Your task to perform on an android device: Open Maps and search for coffee Image 0: 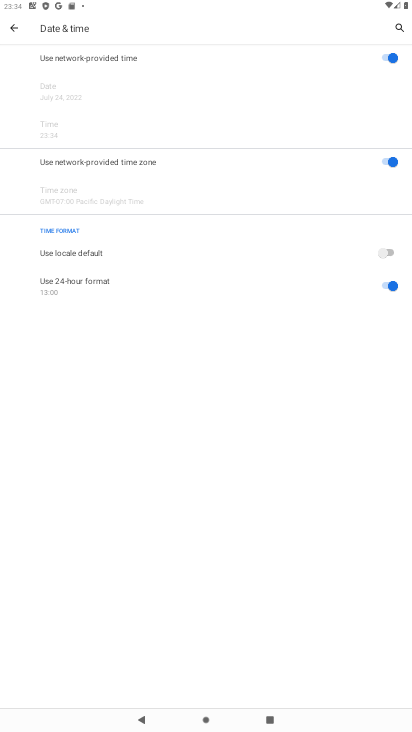
Step 0: press home button
Your task to perform on an android device: Open Maps and search for coffee Image 1: 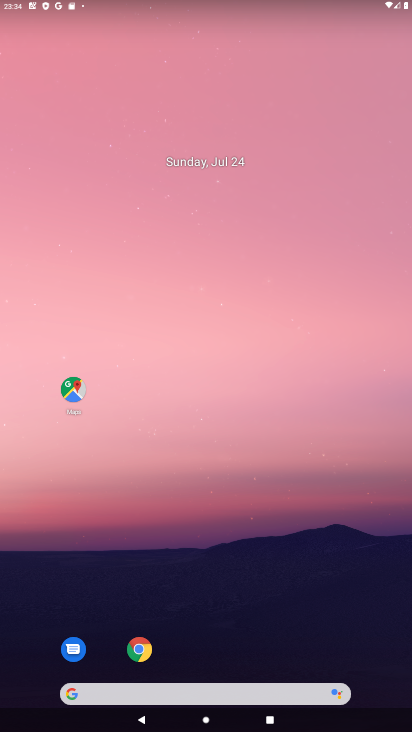
Step 1: click (73, 389)
Your task to perform on an android device: Open Maps and search for coffee Image 2: 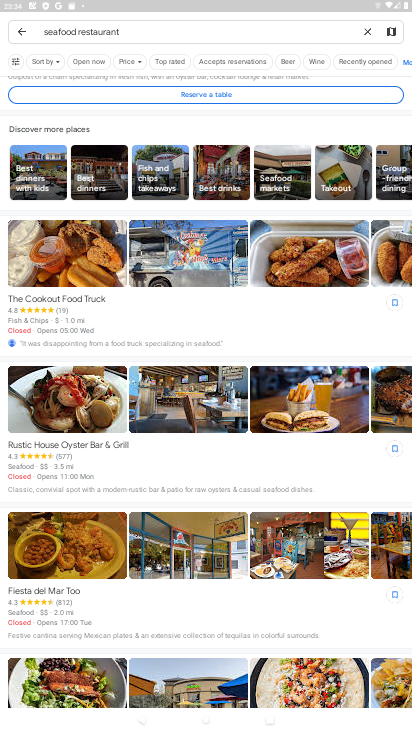
Step 2: click (365, 32)
Your task to perform on an android device: Open Maps and search for coffee Image 3: 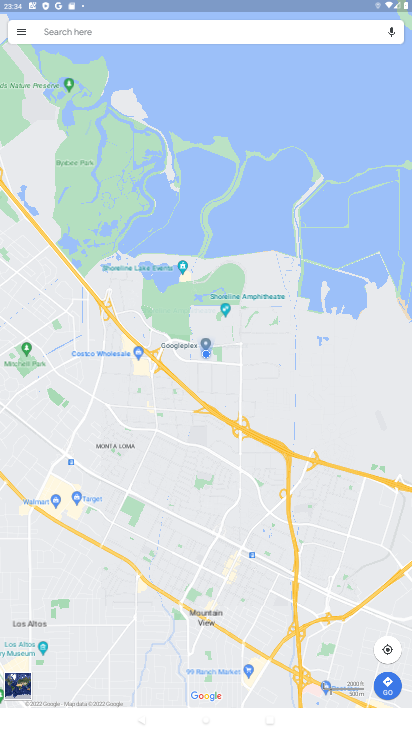
Step 3: click (123, 34)
Your task to perform on an android device: Open Maps and search for coffee Image 4: 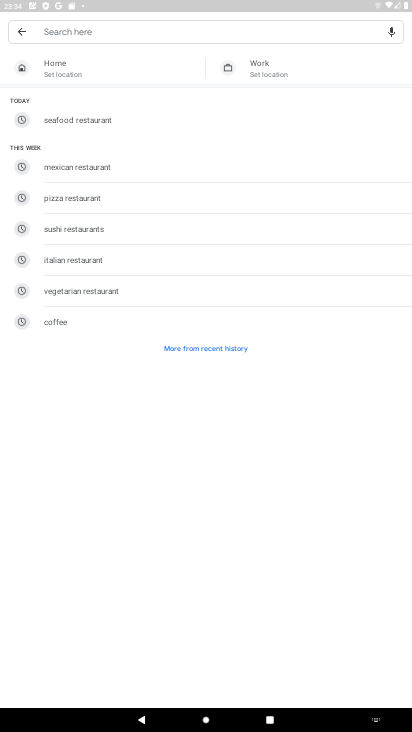
Step 4: click (84, 319)
Your task to perform on an android device: Open Maps and search for coffee Image 5: 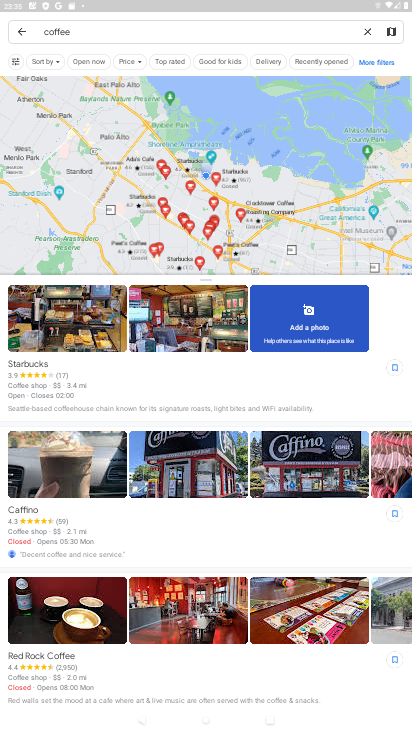
Step 5: task complete